Your task to perform on an android device: Search for the best coffee tables on Crate & Barrel Image 0: 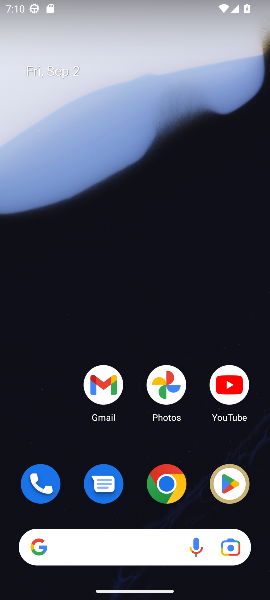
Step 0: click (164, 481)
Your task to perform on an android device: Search for the best coffee tables on Crate & Barrel Image 1: 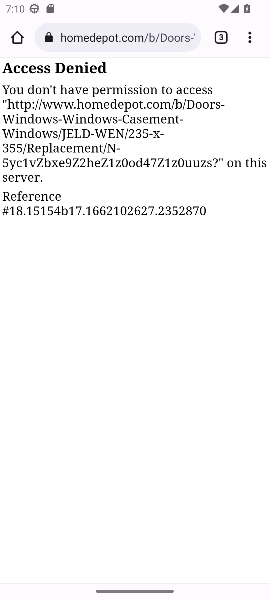
Step 1: click (119, 36)
Your task to perform on an android device: Search for the best coffee tables on Crate & Barrel Image 2: 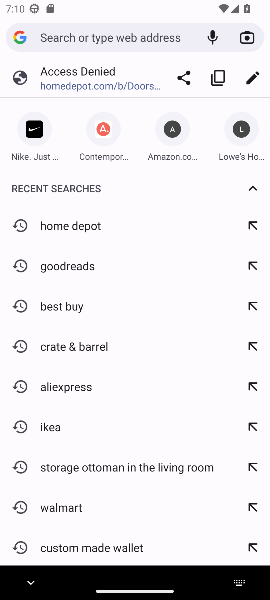
Step 2: type "Crate & Barrel"
Your task to perform on an android device: Search for the best coffee tables on Crate & Barrel Image 3: 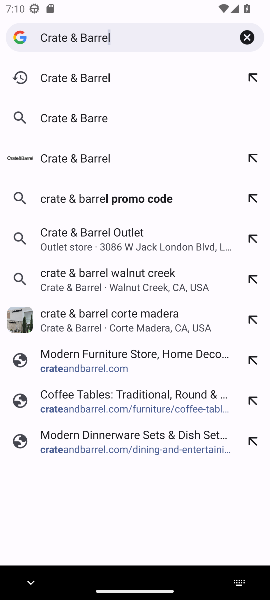
Step 3: press enter
Your task to perform on an android device: Search for the best coffee tables on Crate & Barrel Image 4: 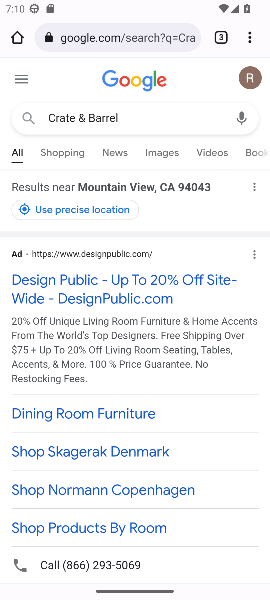
Step 4: drag from (156, 479) to (175, 62)
Your task to perform on an android device: Search for the best coffee tables on Crate & Barrel Image 5: 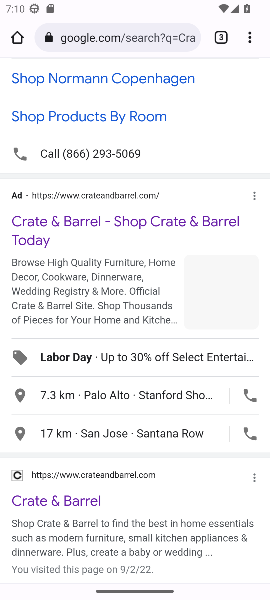
Step 5: click (83, 500)
Your task to perform on an android device: Search for the best coffee tables on Crate & Barrel Image 6: 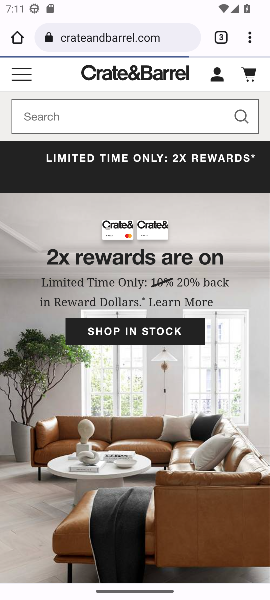
Step 6: click (84, 113)
Your task to perform on an android device: Search for the best coffee tables on Crate & Barrel Image 7: 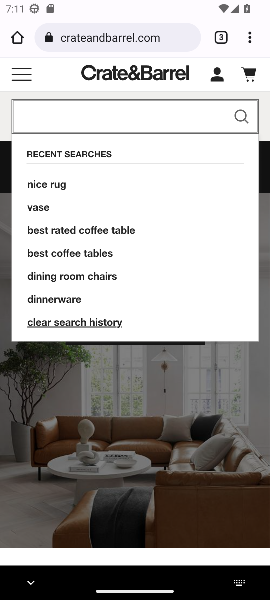
Step 7: type " coffee tables"
Your task to perform on an android device: Search for the best coffee tables on Crate & Barrel Image 8: 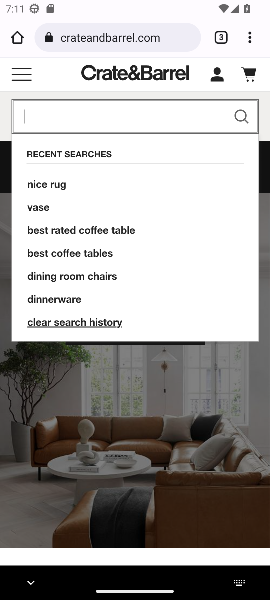
Step 8: press enter
Your task to perform on an android device: Search for the best coffee tables on Crate & Barrel Image 9: 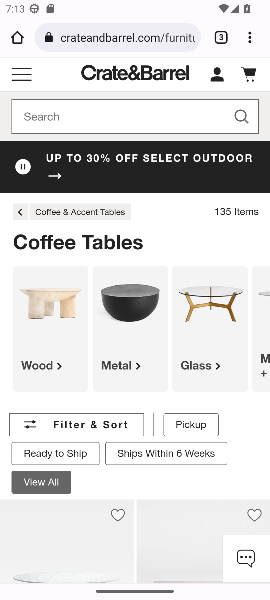
Step 9: task complete